Your task to perform on an android device: turn on showing notifications on the lock screen Image 0: 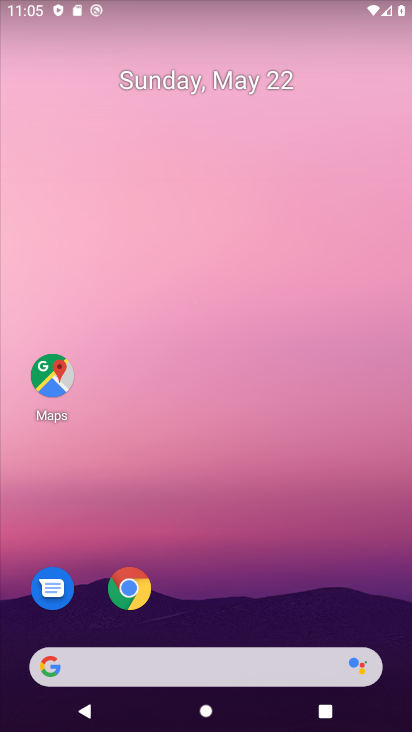
Step 0: drag from (172, 626) to (172, 213)
Your task to perform on an android device: turn on showing notifications on the lock screen Image 1: 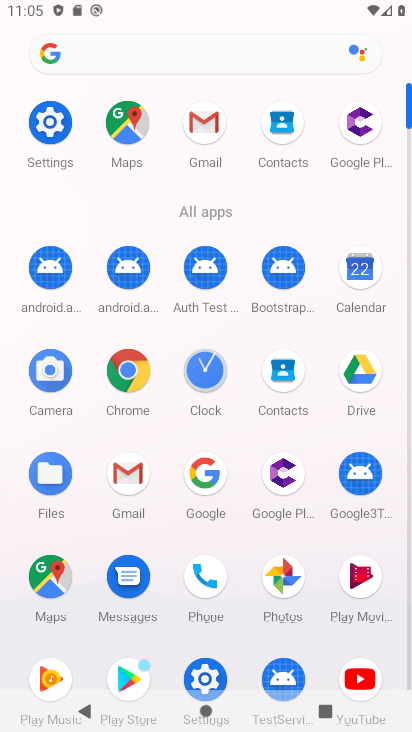
Step 1: click (47, 113)
Your task to perform on an android device: turn on showing notifications on the lock screen Image 2: 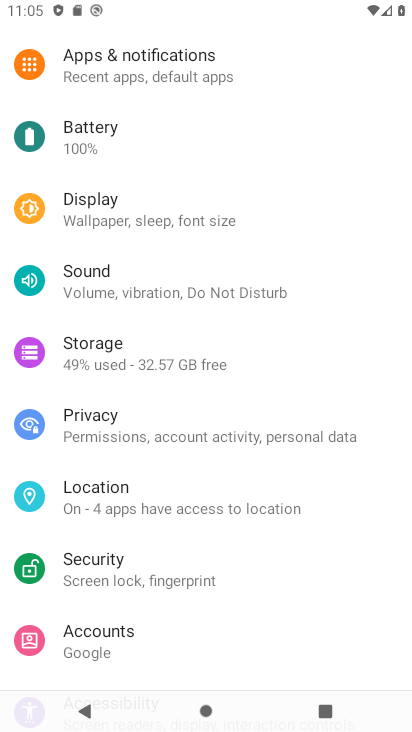
Step 2: click (103, 503)
Your task to perform on an android device: turn on showing notifications on the lock screen Image 3: 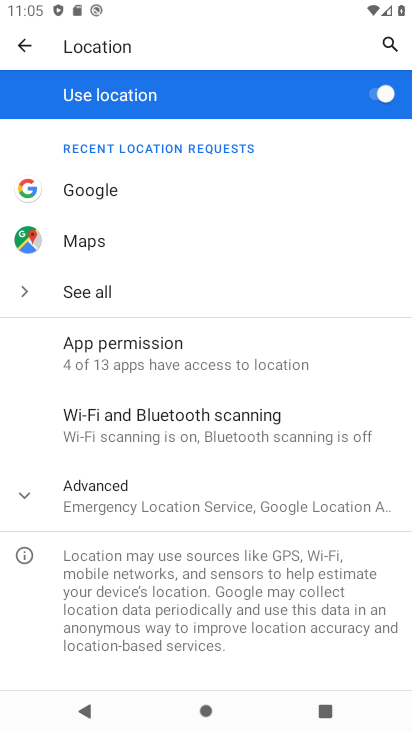
Step 3: click (150, 507)
Your task to perform on an android device: turn on showing notifications on the lock screen Image 4: 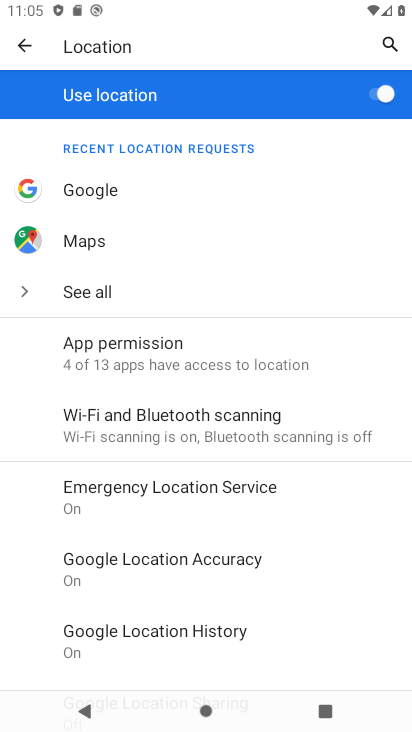
Step 4: drag from (197, 661) to (197, 318)
Your task to perform on an android device: turn on showing notifications on the lock screen Image 5: 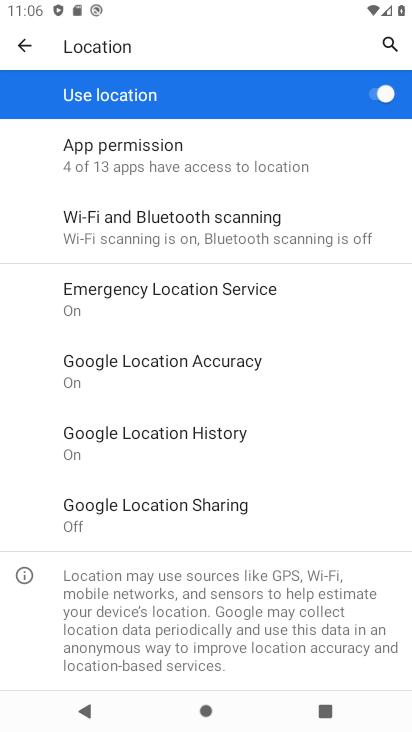
Step 5: click (27, 51)
Your task to perform on an android device: turn on showing notifications on the lock screen Image 6: 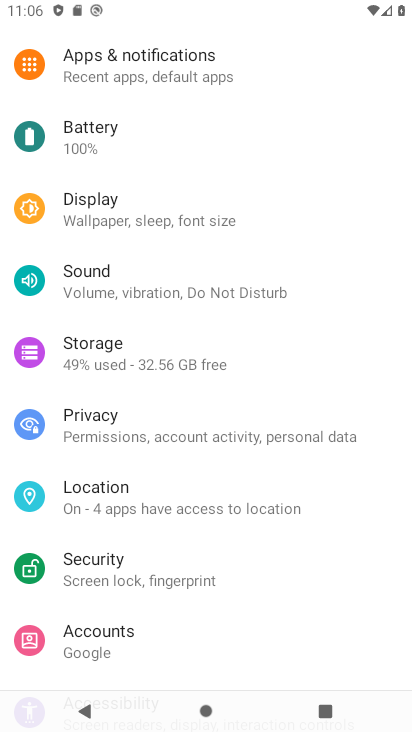
Step 6: click (115, 431)
Your task to perform on an android device: turn on showing notifications on the lock screen Image 7: 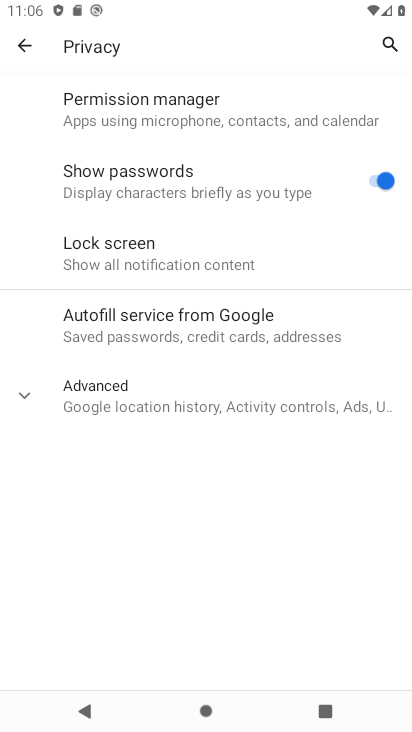
Step 7: click (178, 264)
Your task to perform on an android device: turn on showing notifications on the lock screen Image 8: 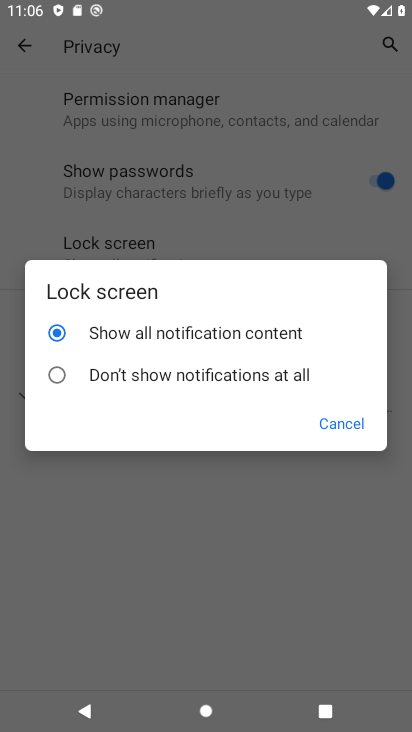
Step 8: click (370, 425)
Your task to perform on an android device: turn on showing notifications on the lock screen Image 9: 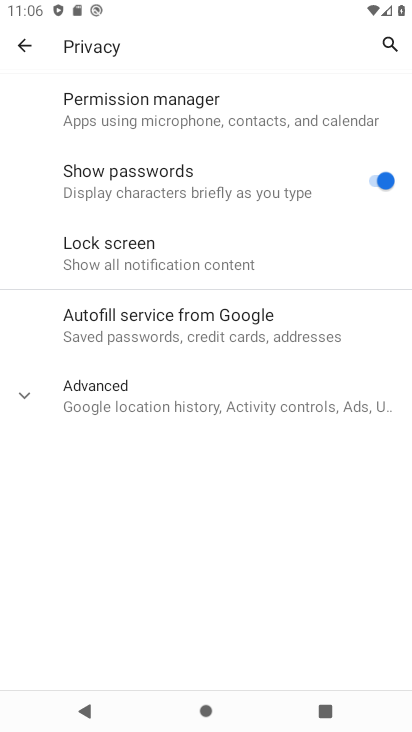
Step 9: task complete